Your task to perform on an android device: Open calendar and show me the third week of next month Image 0: 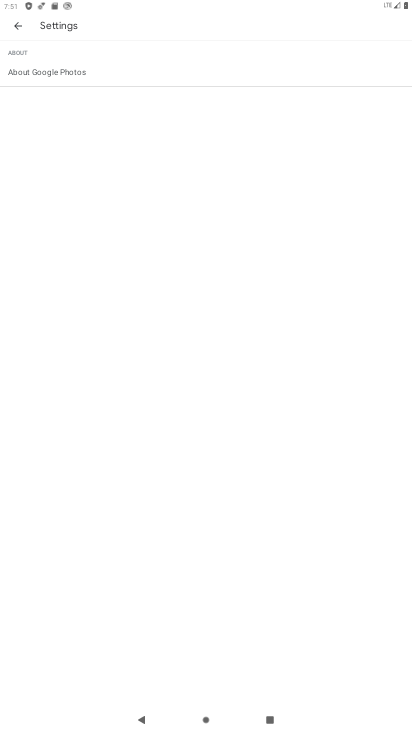
Step 0: press home button
Your task to perform on an android device: Open calendar and show me the third week of next month Image 1: 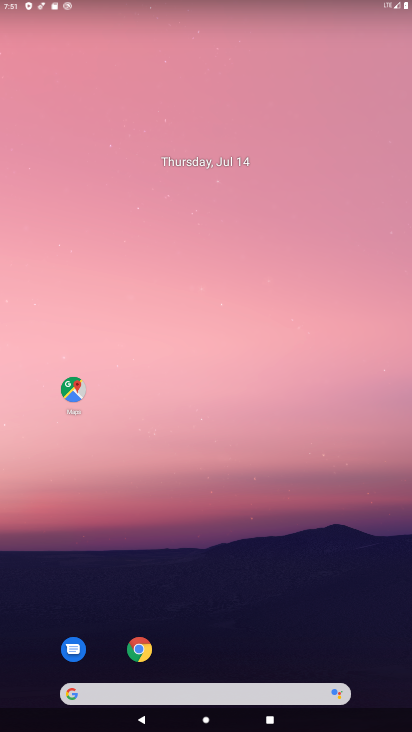
Step 1: drag from (258, 596) to (190, 83)
Your task to perform on an android device: Open calendar and show me the third week of next month Image 2: 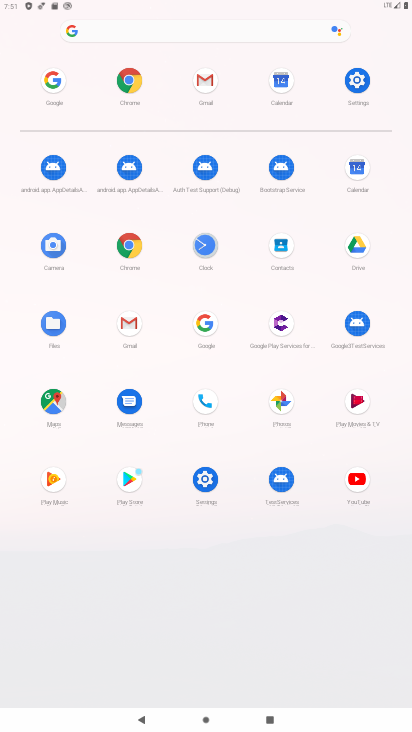
Step 2: click (362, 179)
Your task to perform on an android device: Open calendar and show me the third week of next month Image 3: 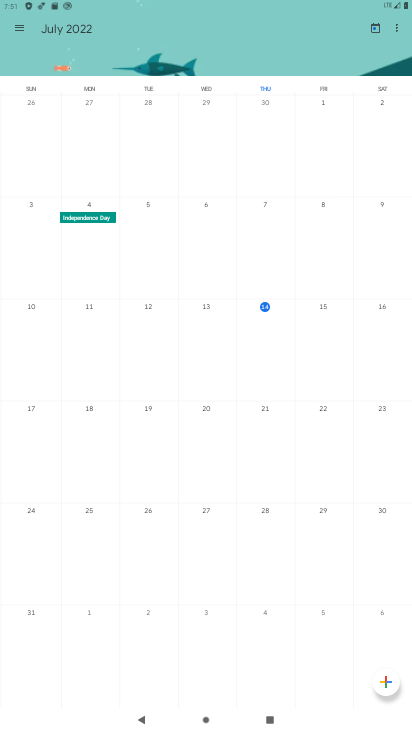
Step 3: drag from (341, 191) to (18, 235)
Your task to perform on an android device: Open calendar and show me the third week of next month Image 4: 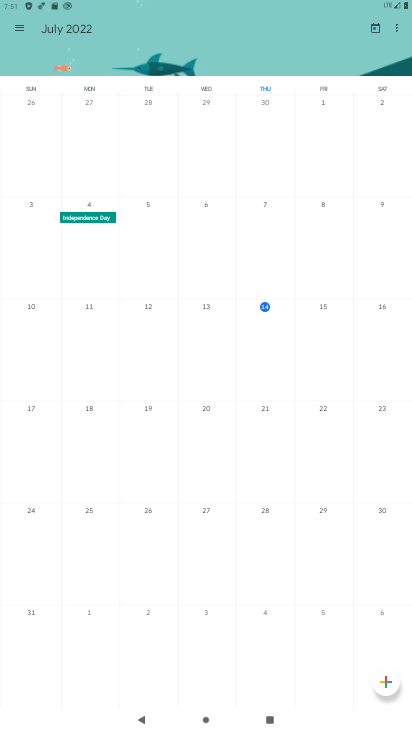
Step 4: drag from (370, 416) to (55, 466)
Your task to perform on an android device: Open calendar and show me the third week of next month Image 5: 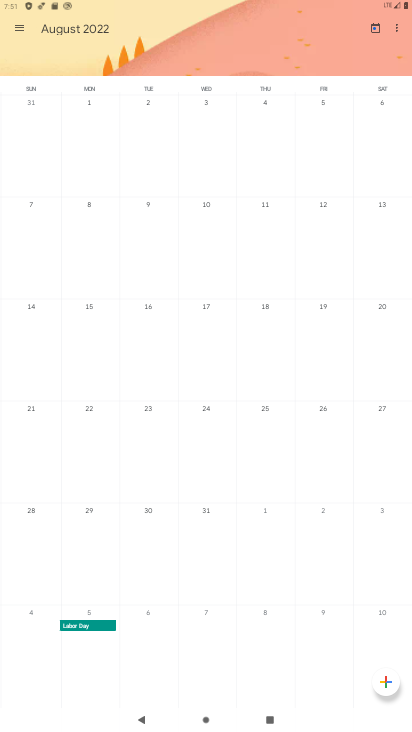
Step 5: click (31, 407)
Your task to perform on an android device: Open calendar and show me the third week of next month Image 6: 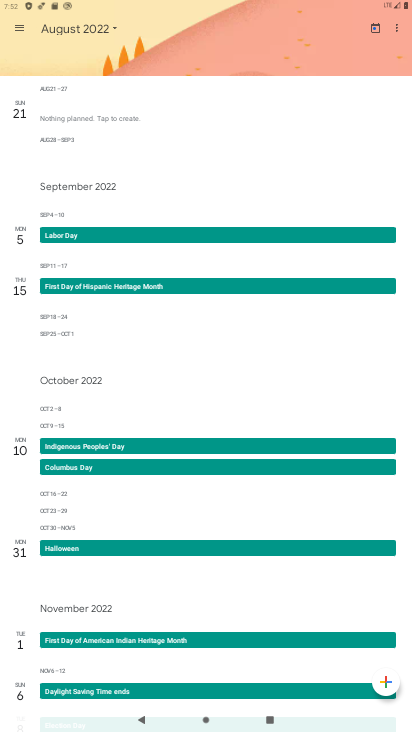
Step 6: task complete